Your task to perform on an android device: Add lenovo thinkpad to the cart on amazon, then select checkout. Image 0: 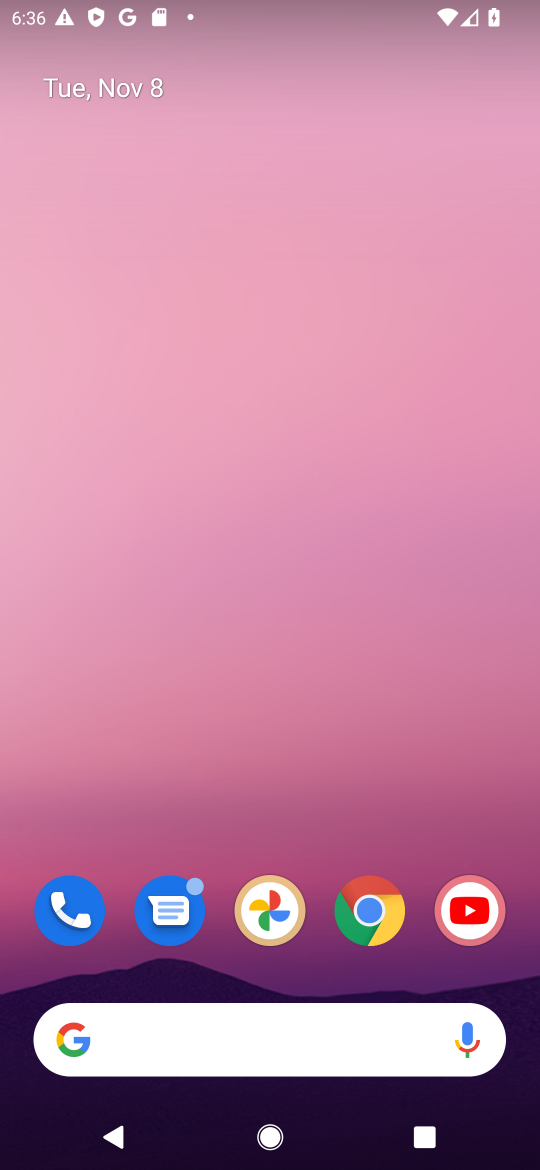
Step 0: click (370, 902)
Your task to perform on an android device: Add lenovo thinkpad to the cart on amazon, then select checkout. Image 1: 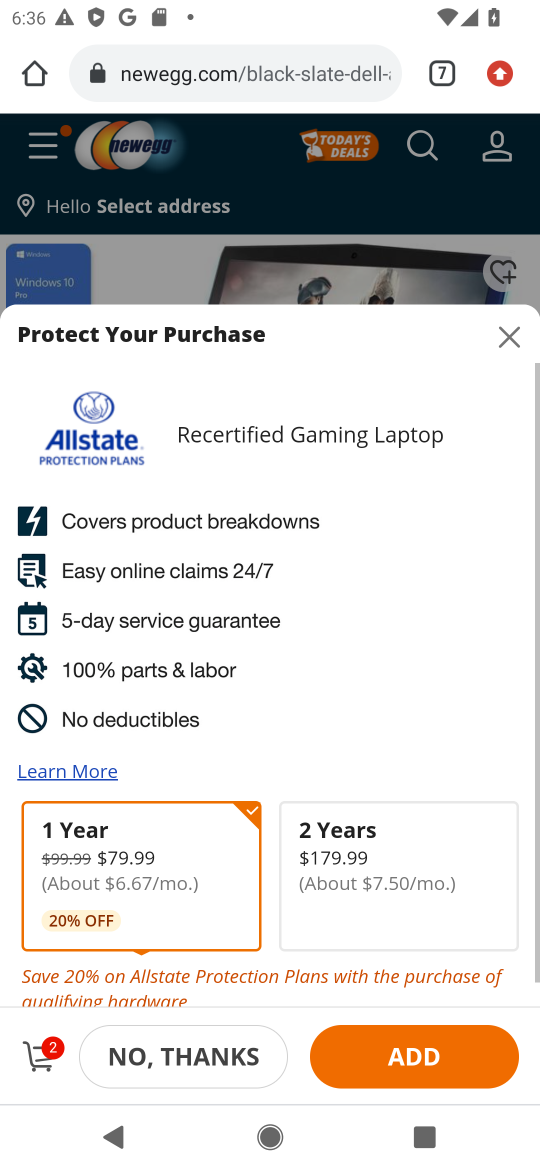
Step 1: click (441, 74)
Your task to perform on an android device: Add lenovo thinkpad to the cart on amazon, then select checkout. Image 2: 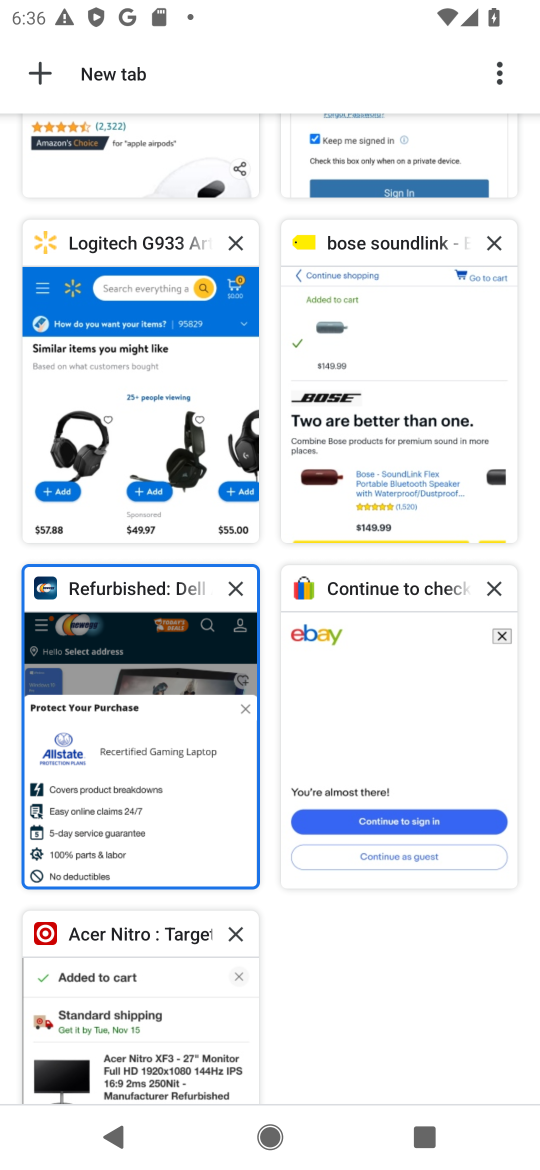
Step 2: drag from (195, 196) to (158, 908)
Your task to perform on an android device: Add lenovo thinkpad to the cart on amazon, then select checkout. Image 3: 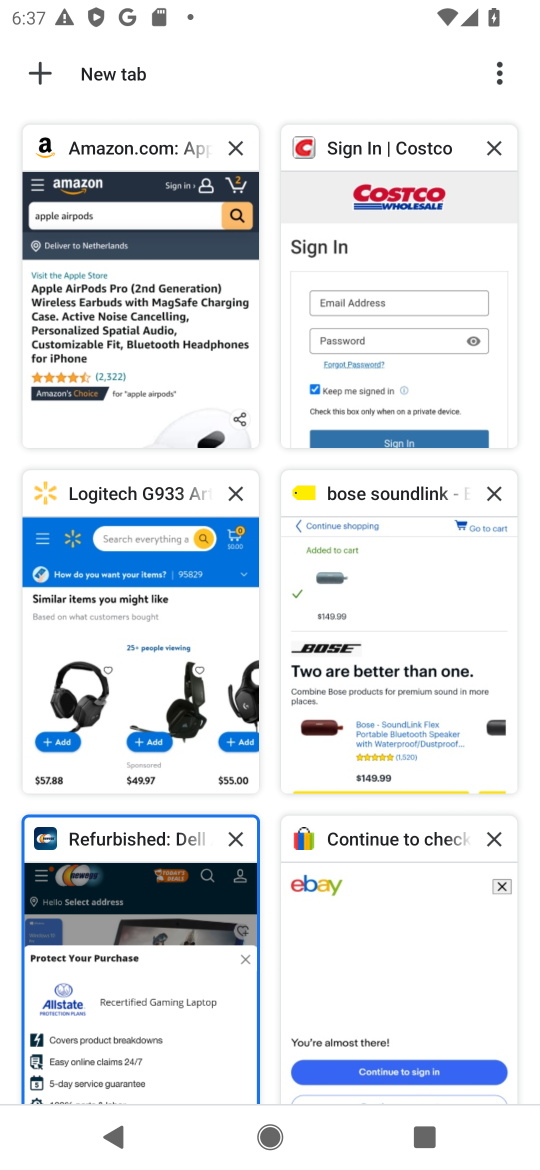
Step 3: click (195, 288)
Your task to perform on an android device: Add lenovo thinkpad to the cart on amazon, then select checkout. Image 4: 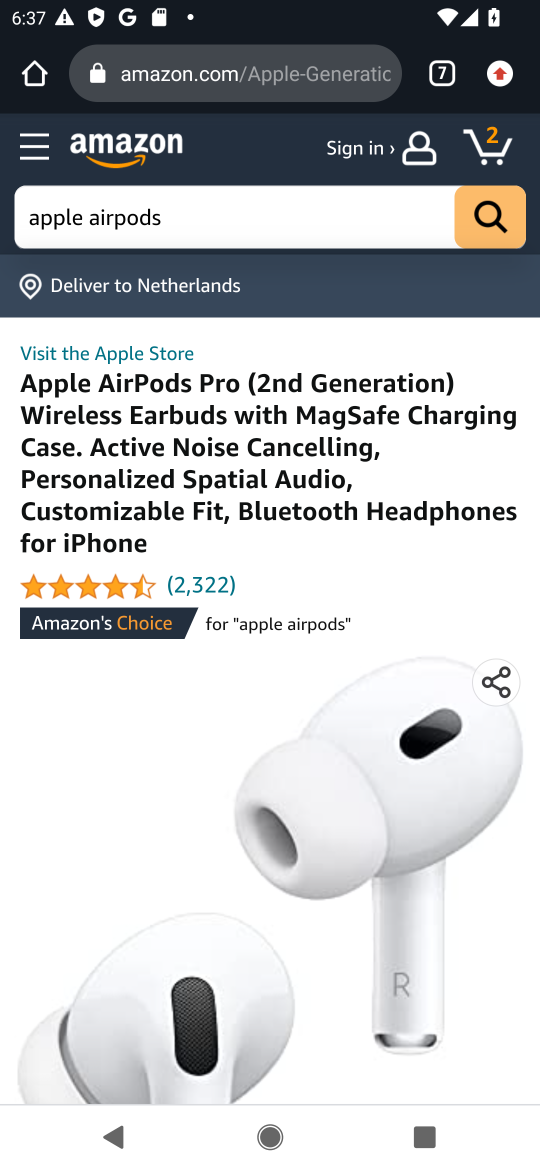
Step 4: click (220, 234)
Your task to perform on an android device: Add lenovo thinkpad to the cart on amazon, then select checkout. Image 5: 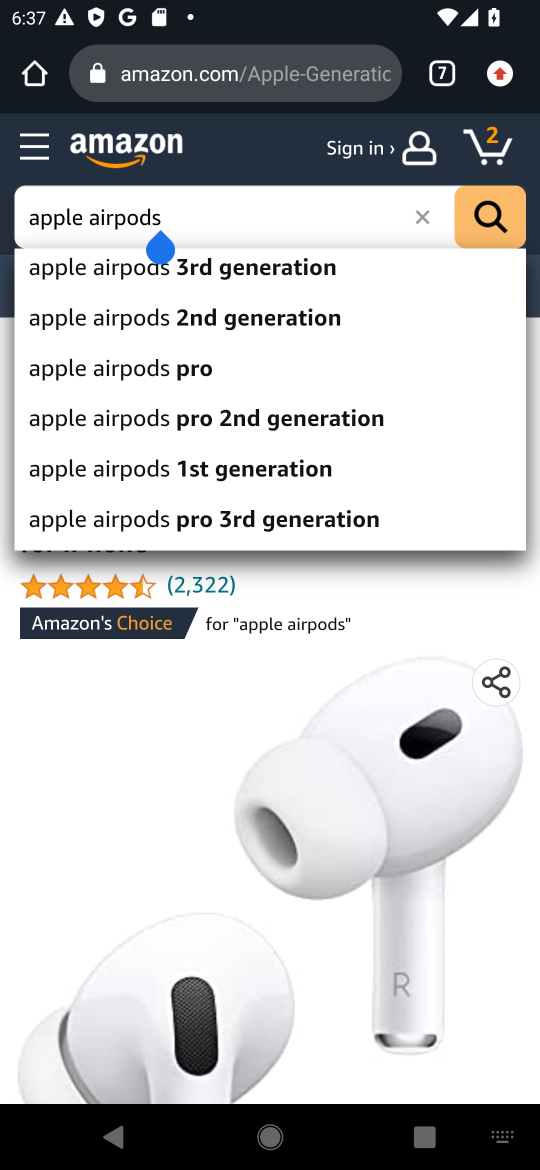
Step 5: click (418, 218)
Your task to perform on an android device: Add lenovo thinkpad to the cart on amazon, then select checkout. Image 6: 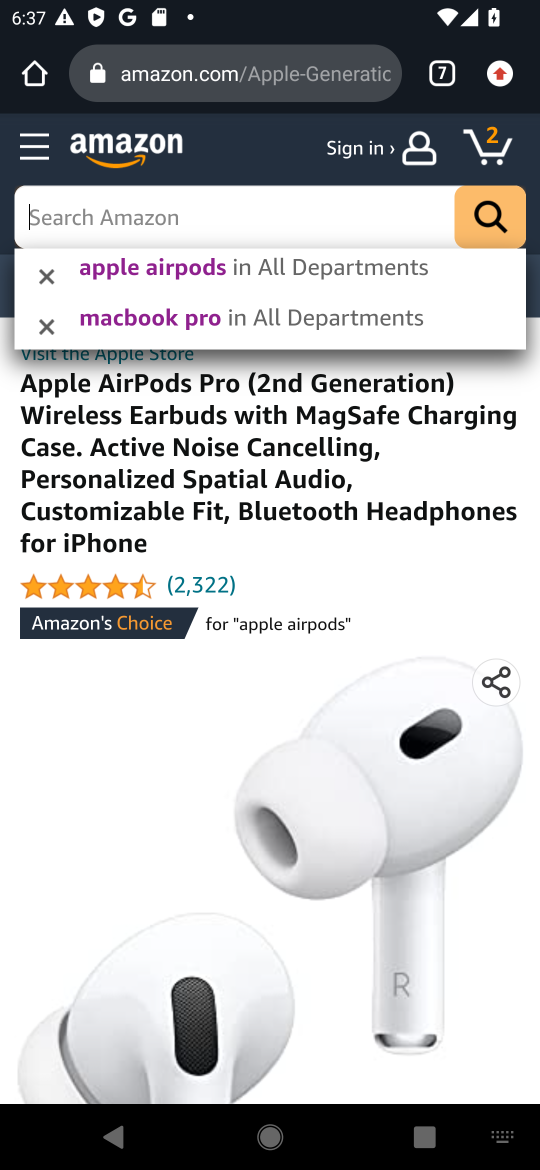
Step 6: type "lenovo thinkpad"
Your task to perform on an android device: Add lenovo thinkpad to the cart on amazon, then select checkout. Image 7: 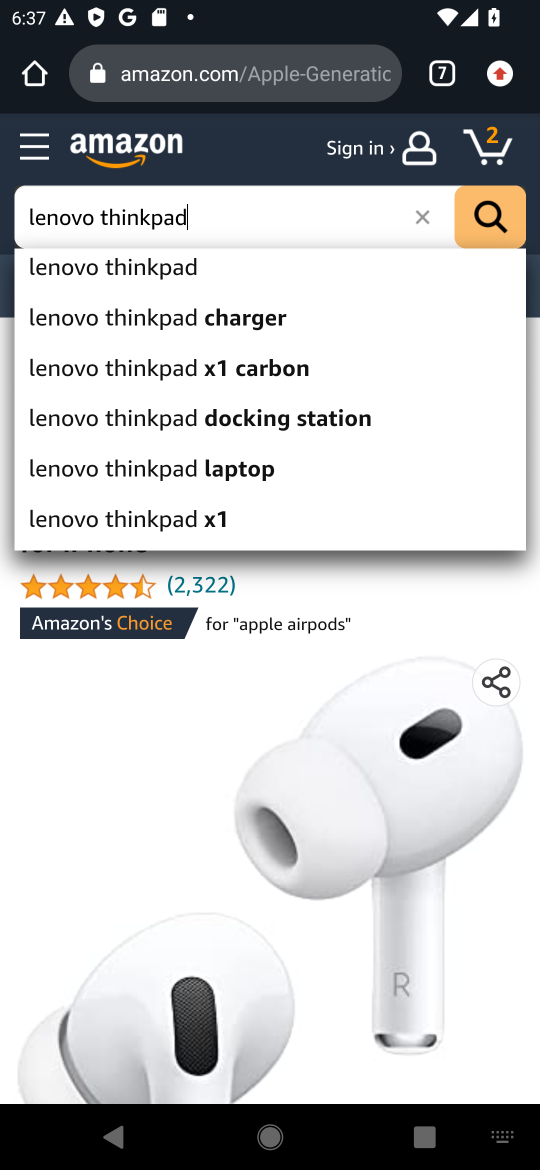
Step 7: click (498, 225)
Your task to perform on an android device: Add lenovo thinkpad to the cart on amazon, then select checkout. Image 8: 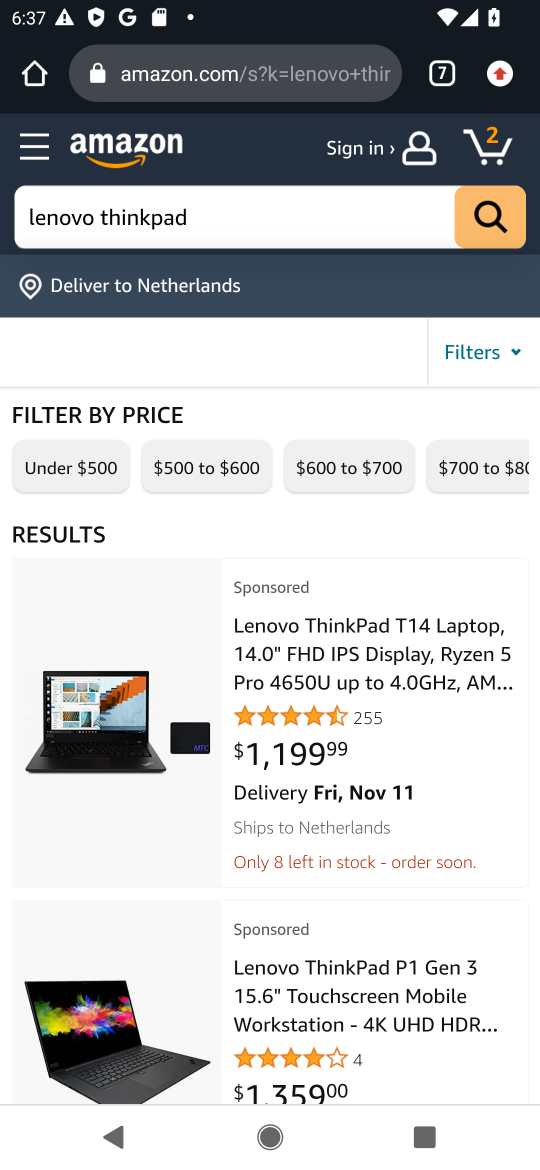
Step 8: click (373, 663)
Your task to perform on an android device: Add lenovo thinkpad to the cart on amazon, then select checkout. Image 9: 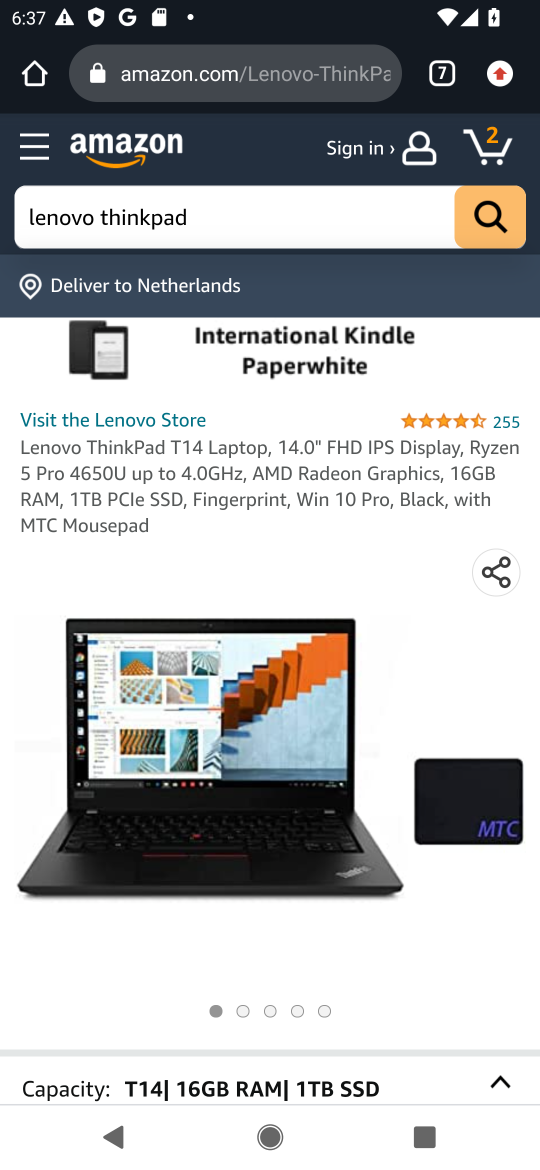
Step 9: drag from (331, 988) to (437, 232)
Your task to perform on an android device: Add lenovo thinkpad to the cart on amazon, then select checkout. Image 10: 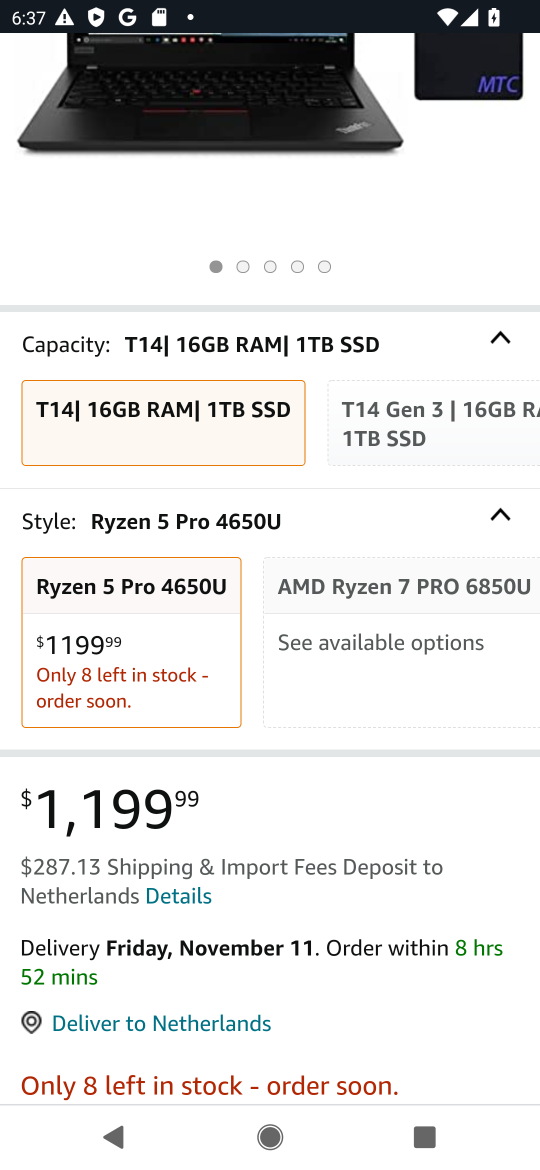
Step 10: drag from (254, 829) to (374, 299)
Your task to perform on an android device: Add lenovo thinkpad to the cart on amazon, then select checkout. Image 11: 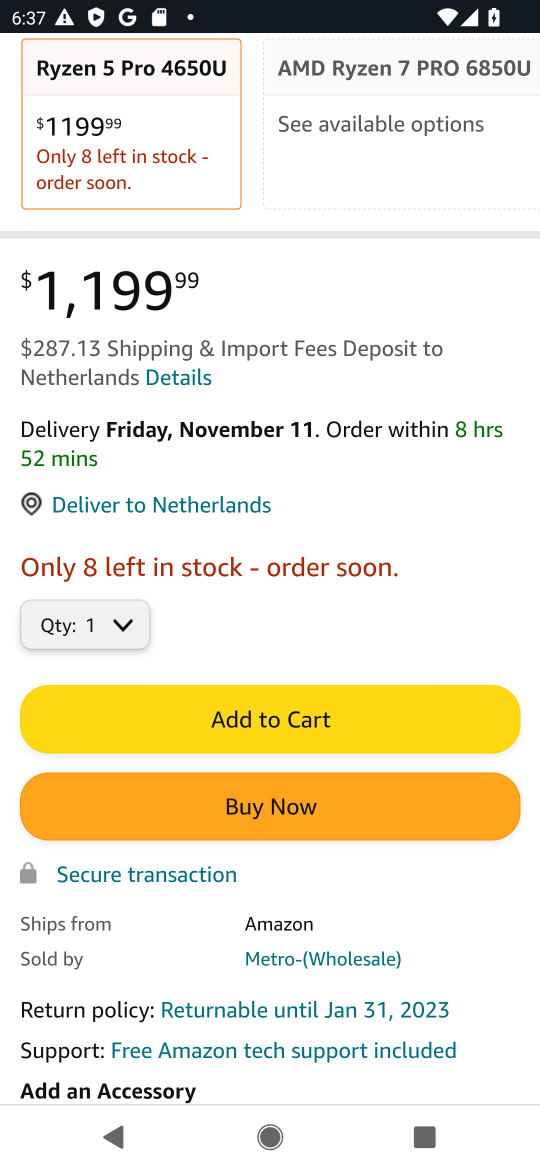
Step 11: click (241, 725)
Your task to perform on an android device: Add lenovo thinkpad to the cart on amazon, then select checkout. Image 12: 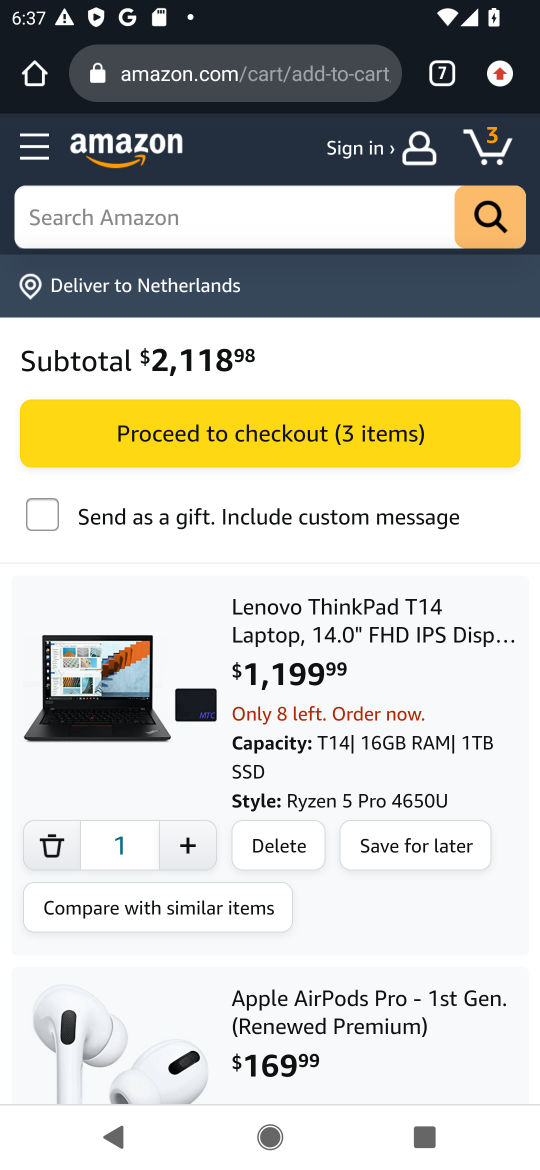
Step 12: click (326, 420)
Your task to perform on an android device: Add lenovo thinkpad to the cart on amazon, then select checkout. Image 13: 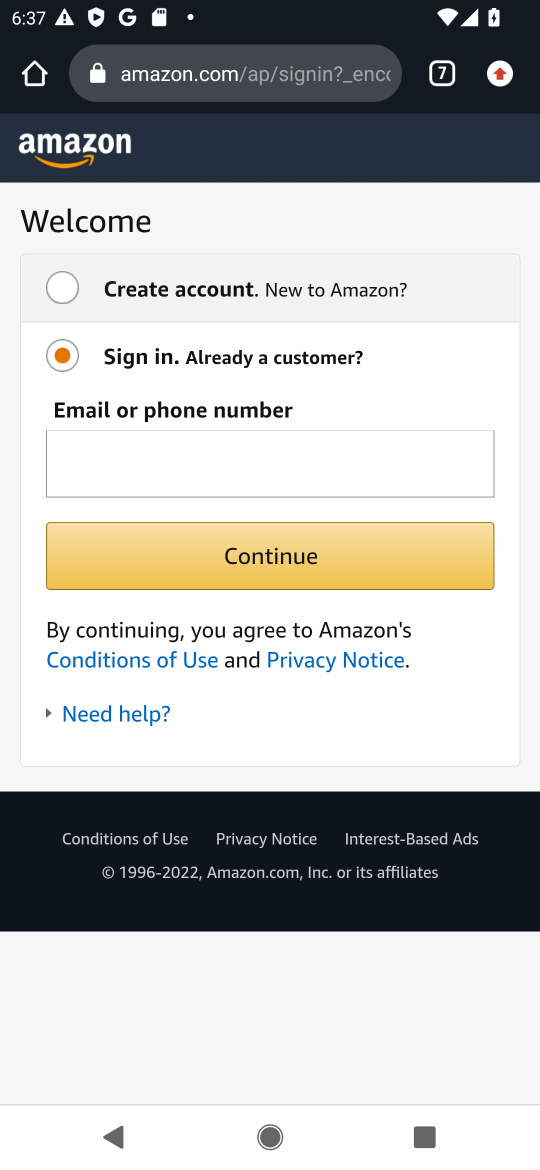
Step 13: task complete